Your task to perform on an android device: Go to accessibility settings Image 0: 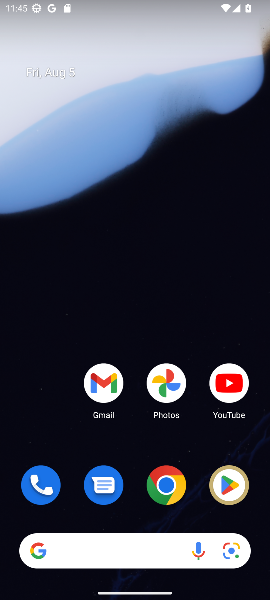
Step 0: drag from (142, 351) to (125, 28)
Your task to perform on an android device: Go to accessibility settings Image 1: 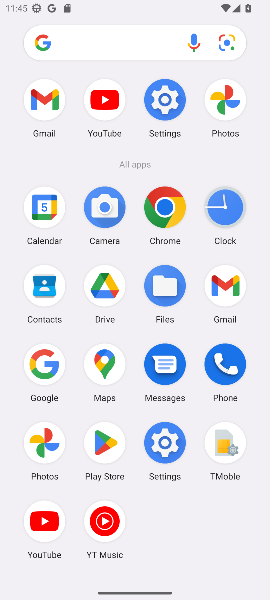
Step 1: click (166, 99)
Your task to perform on an android device: Go to accessibility settings Image 2: 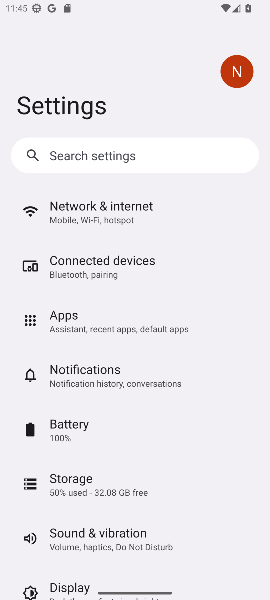
Step 2: drag from (169, 486) to (165, 175)
Your task to perform on an android device: Go to accessibility settings Image 3: 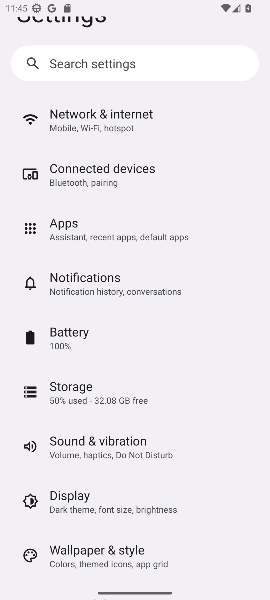
Step 3: drag from (186, 541) to (182, 330)
Your task to perform on an android device: Go to accessibility settings Image 4: 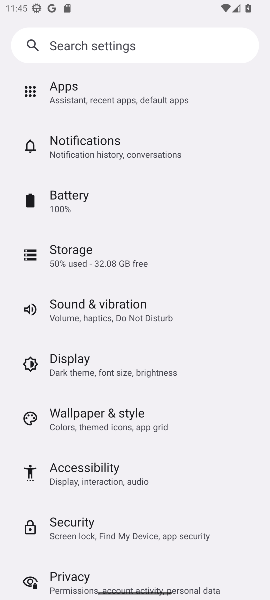
Step 4: click (102, 473)
Your task to perform on an android device: Go to accessibility settings Image 5: 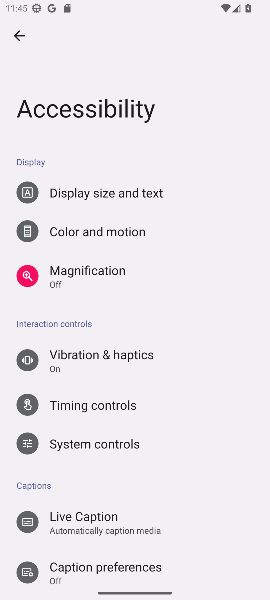
Step 5: task complete